Your task to perform on an android device: allow cookies in the chrome app Image 0: 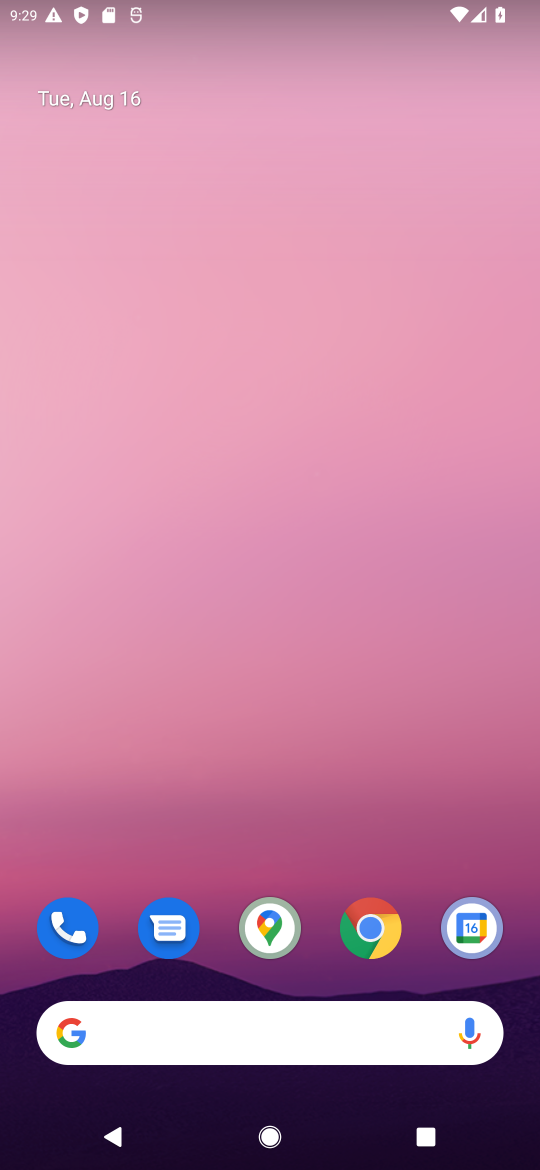
Step 0: press home button
Your task to perform on an android device: allow cookies in the chrome app Image 1: 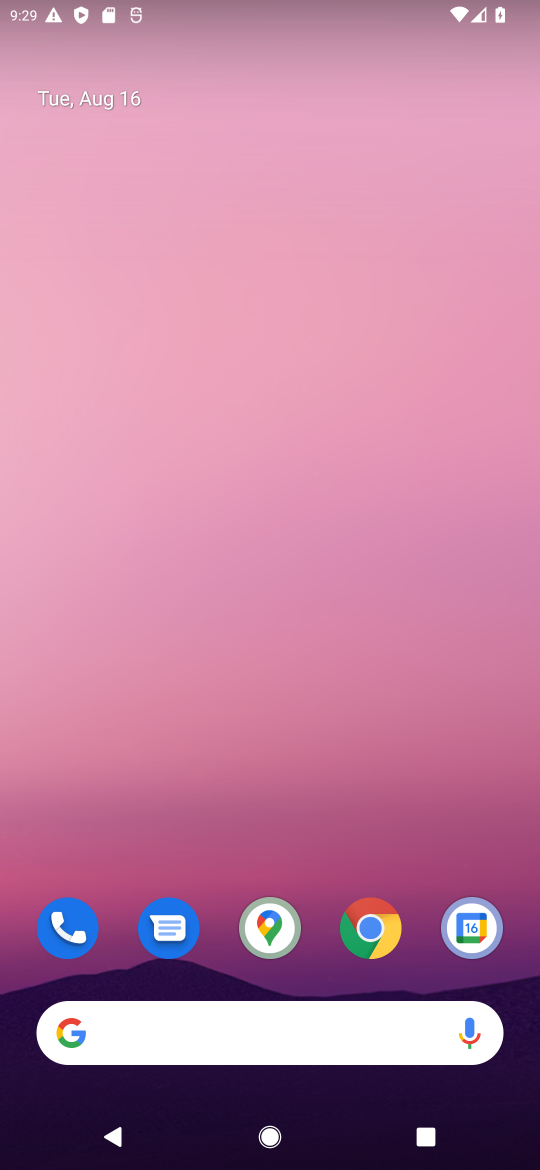
Step 1: click (379, 928)
Your task to perform on an android device: allow cookies in the chrome app Image 2: 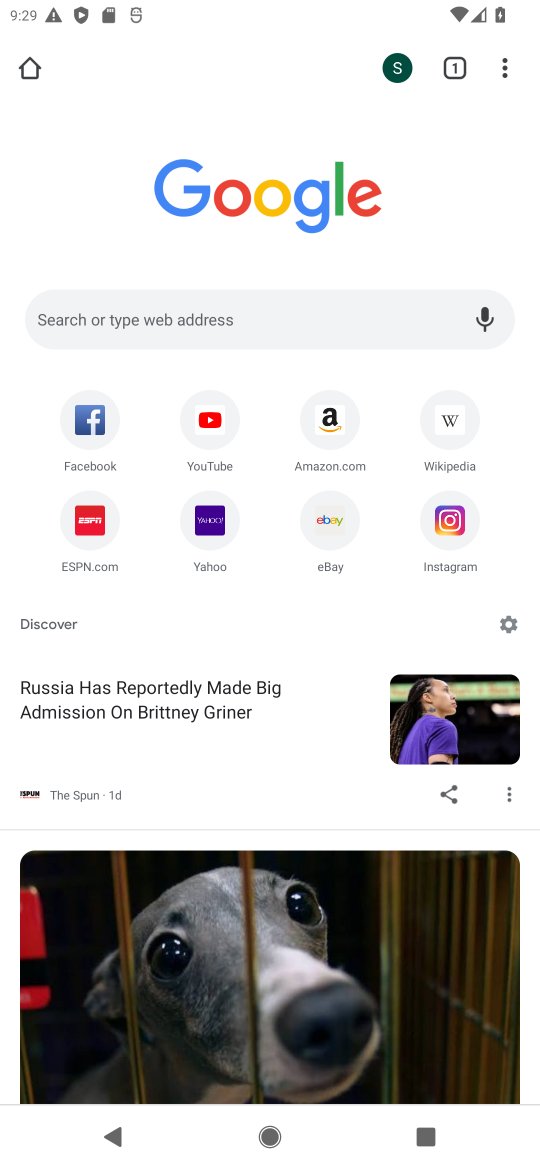
Step 2: drag from (505, 72) to (300, 664)
Your task to perform on an android device: allow cookies in the chrome app Image 3: 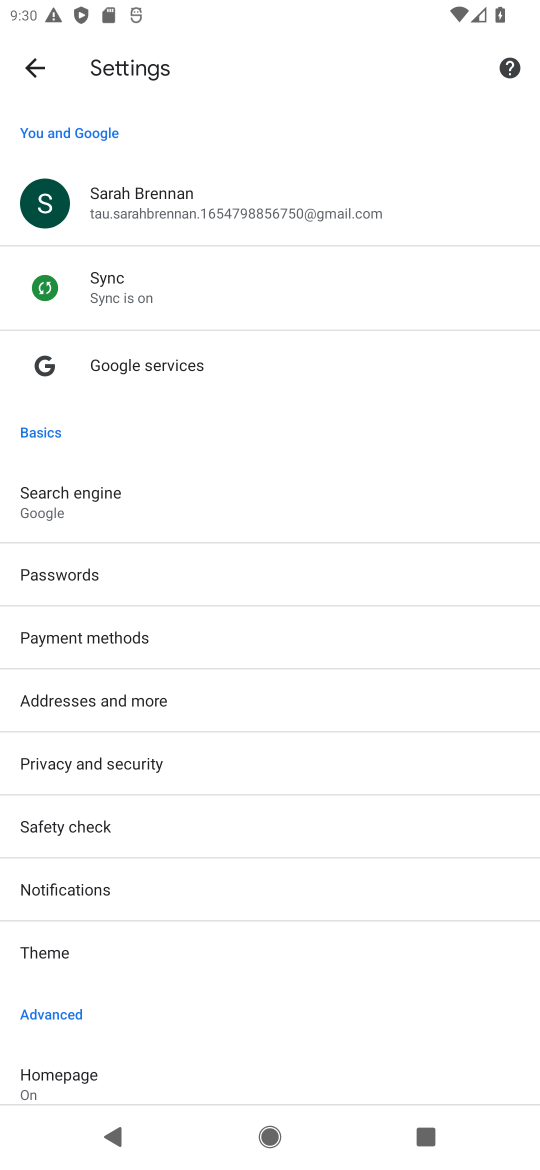
Step 3: drag from (129, 1011) to (154, 564)
Your task to perform on an android device: allow cookies in the chrome app Image 4: 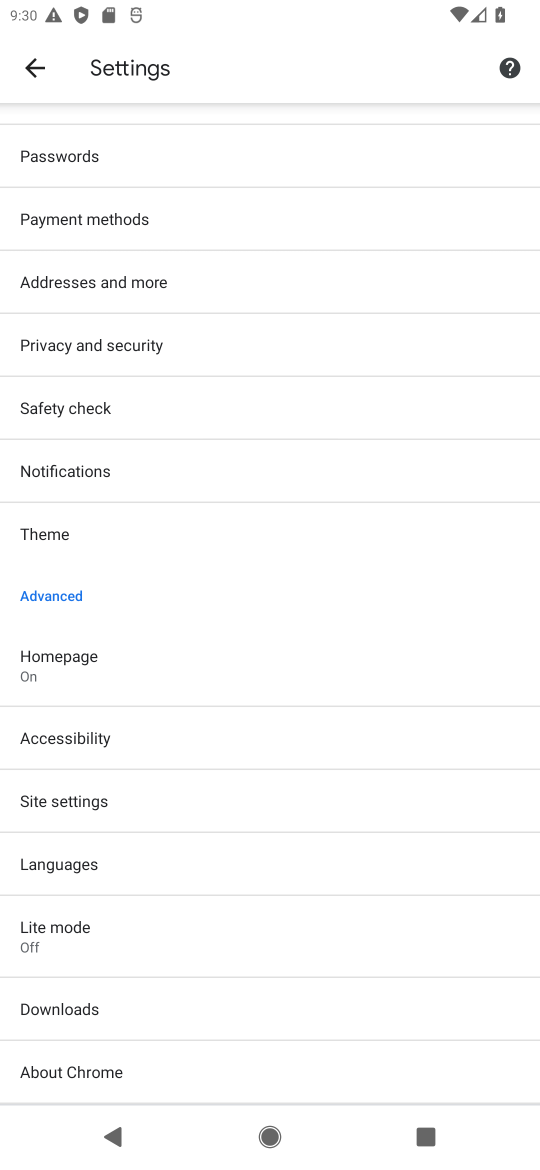
Step 4: click (75, 792)
Your task to perform on an android device: allow cookies in the chrome app Image 5: 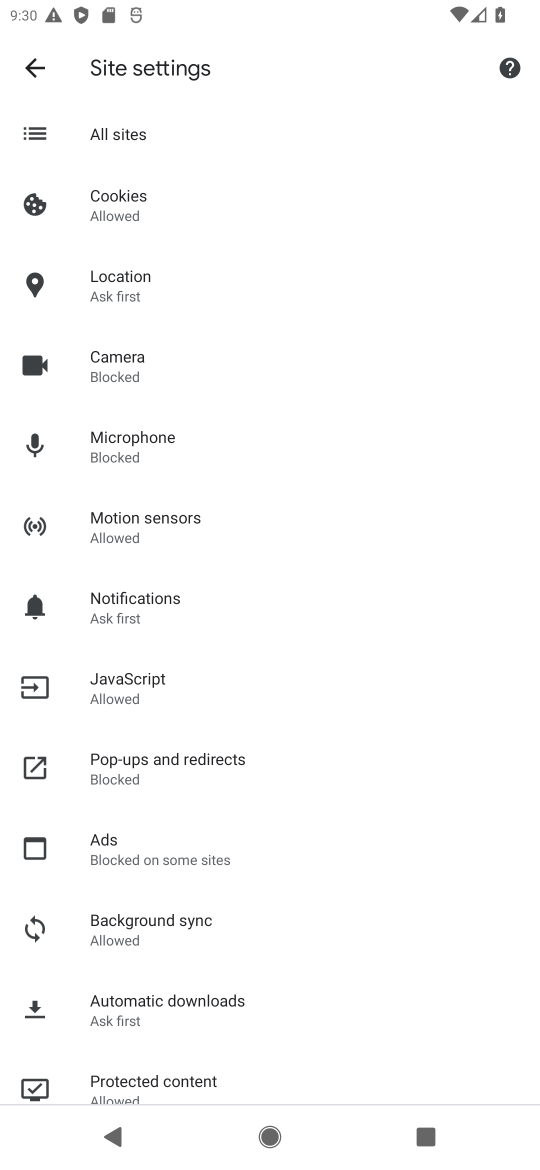
Step 5: click (156, 192)
Your task to perform on an android device: allow cookies in the chrome app Image 6: 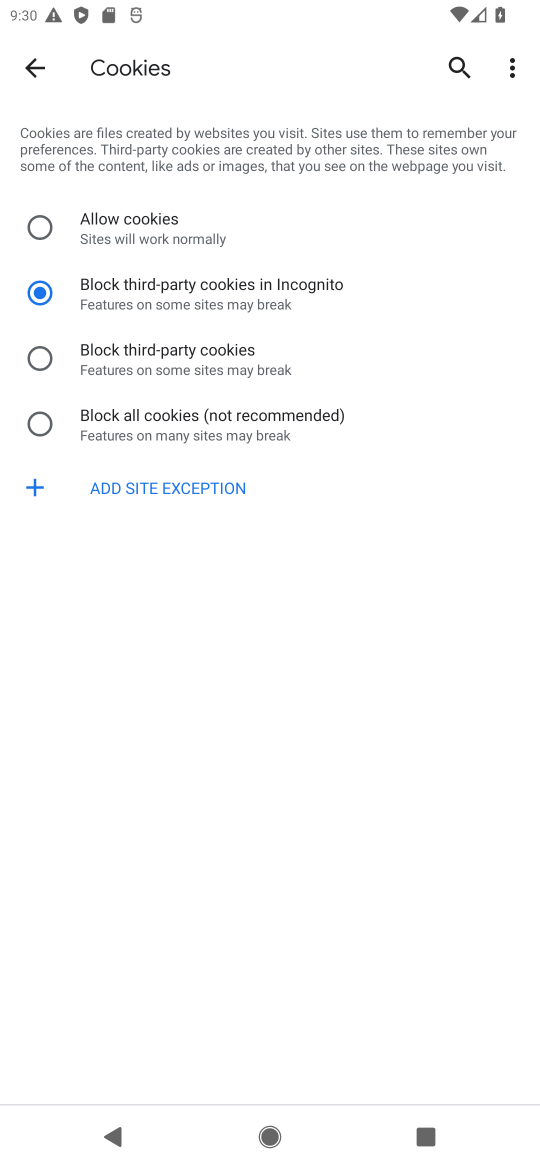
Step 6: click (38, 228)
Your task to perform on an android device: allow cookies in the chrome app Image 7: 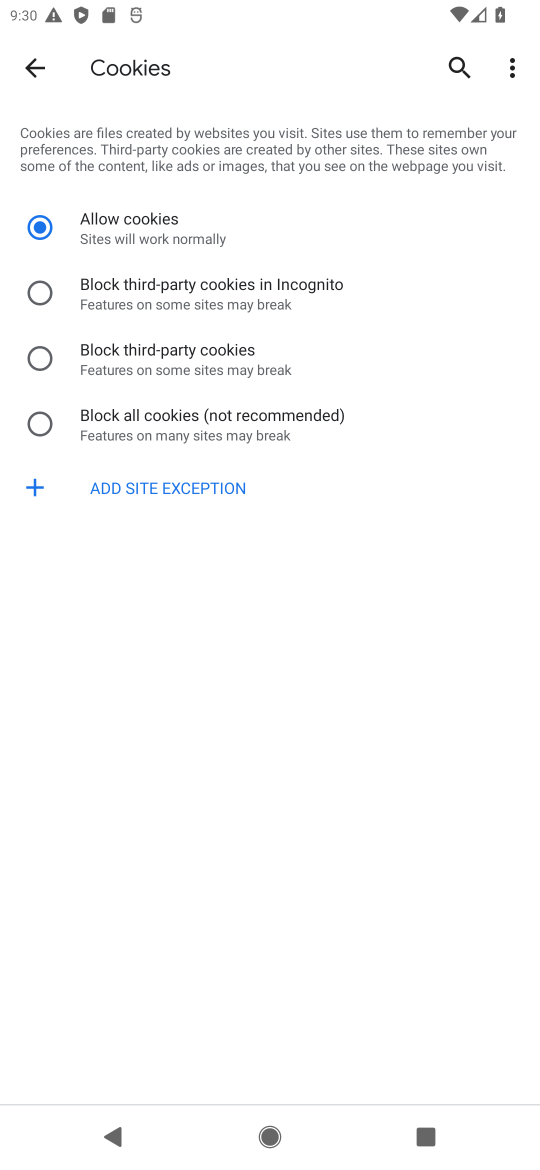
Step 7: task complete